Your task to perform on an android device: Open CNN.com Image 0: 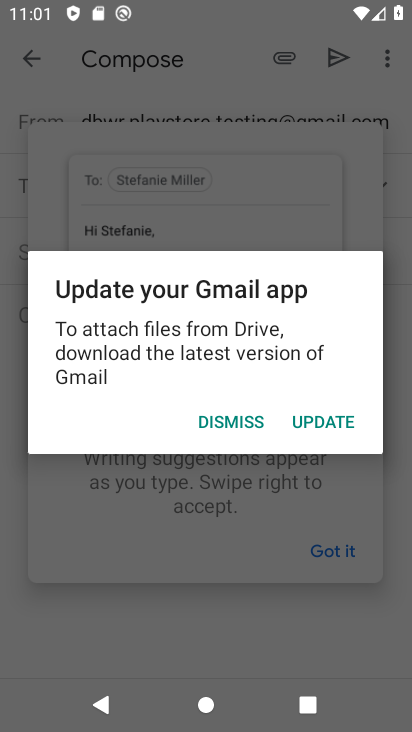
Step 0: press home button
Your task to perform on an android device: Open CNN.com Image 1: 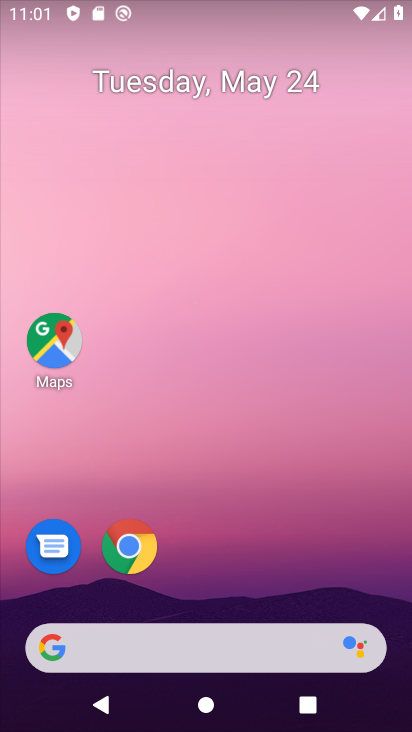
Step 1: click (132, 558)
Your task to perform on an android device: Open CNN.com Image 2: 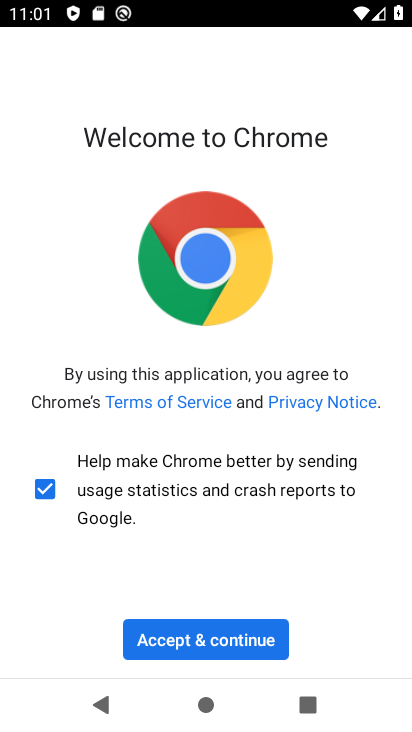
Step 2: click (209, 624)
Your task to perform on an android device: Open CNN.com Image 3: 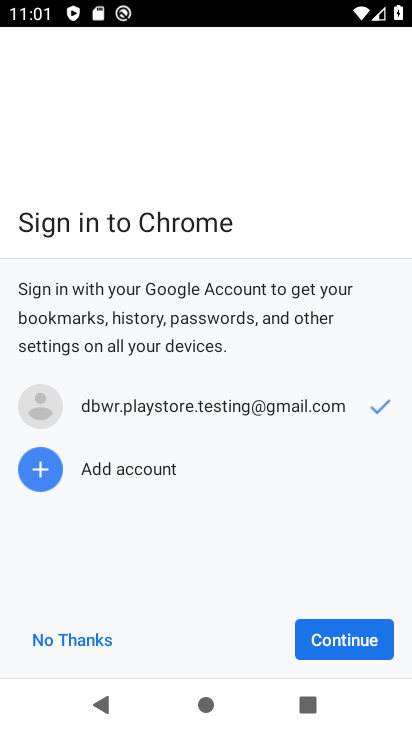
Step 3: click (349, 645)
Your task to perform on an android device: Open CNN.com Image 4: 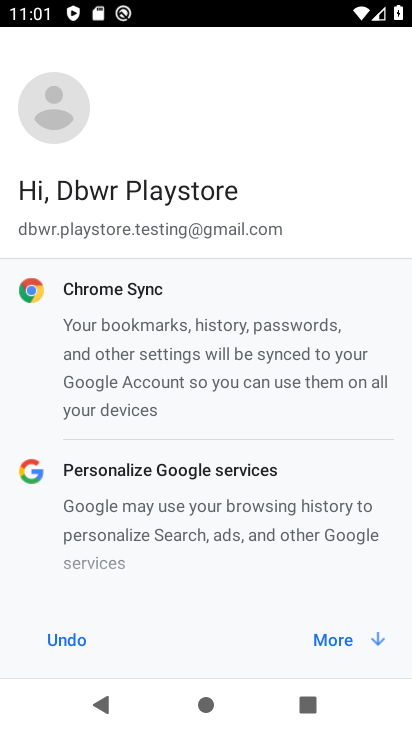
Step 4: click (349, 645)
Your task to perform on an android device: Open CNN.com Image 5: 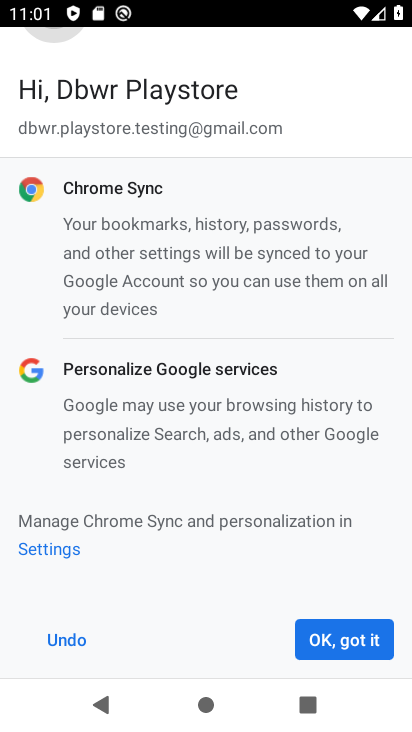
Step 5: click (349, 645)
Your task to perform on an android device: Open CNN.com Image 6: 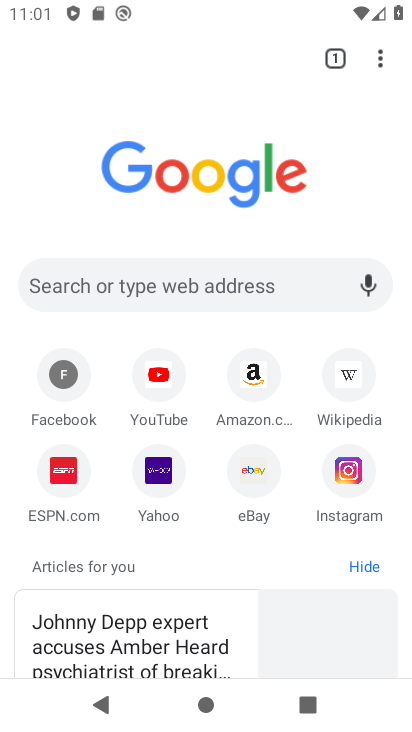
Step 6: click (181, 295)
Your task to perform on an android device: Open CNN.com Image 7: 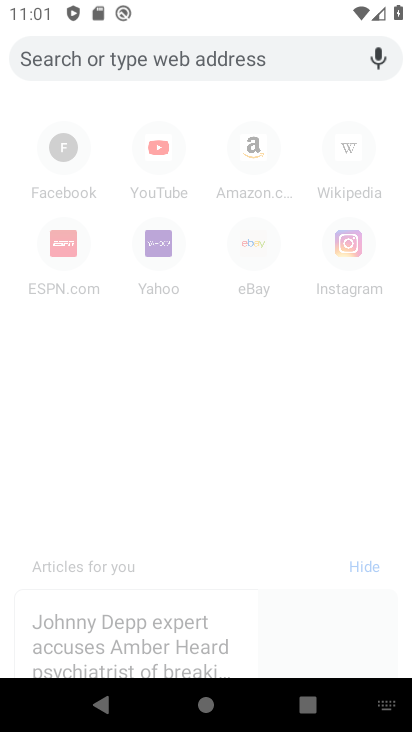
Step 7: type "cnn.com"
Your task to perform on an android device: Open CNN.com Image 8: 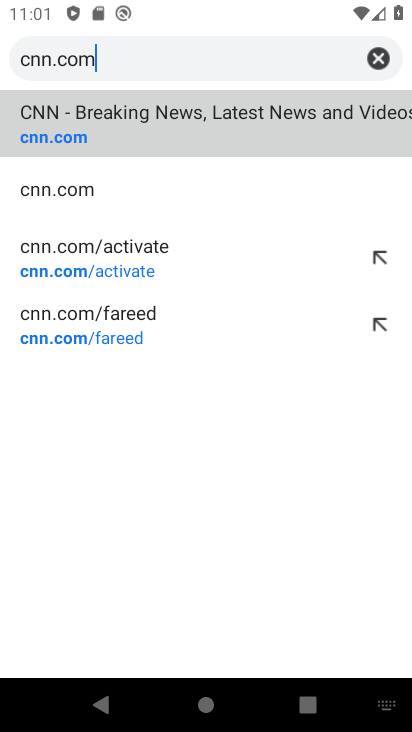
Step 8: click (36, 127)
Your task to perform on an android device: Open CNN.com Image 9: 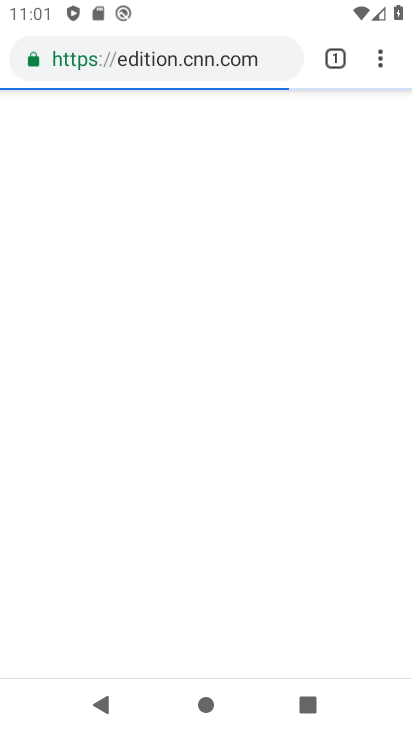
Step 9: task complete